Your task to perform on an android device: Open accessibility settings Image 0: 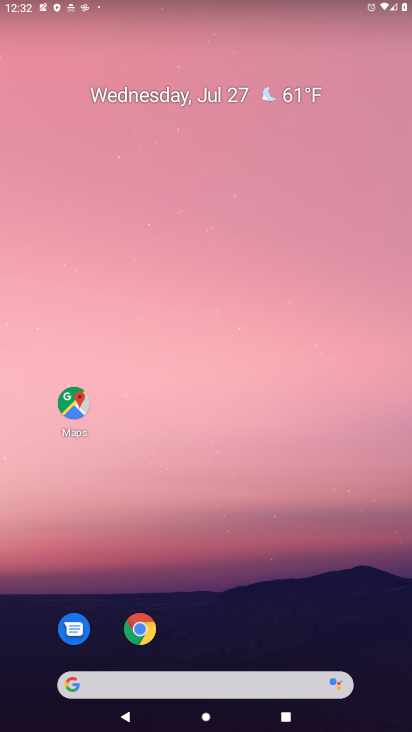
Step 0: drag from (254, 636) to (250, 200)
Your task to perform on an android device: Open accessibility settings Image 1: 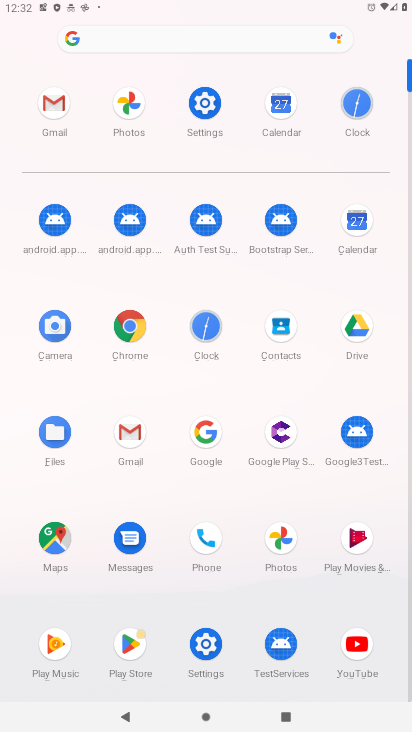
Step 1: click (198, 666)
Your task to perform on an android device: Open accessibility settings Image 2: 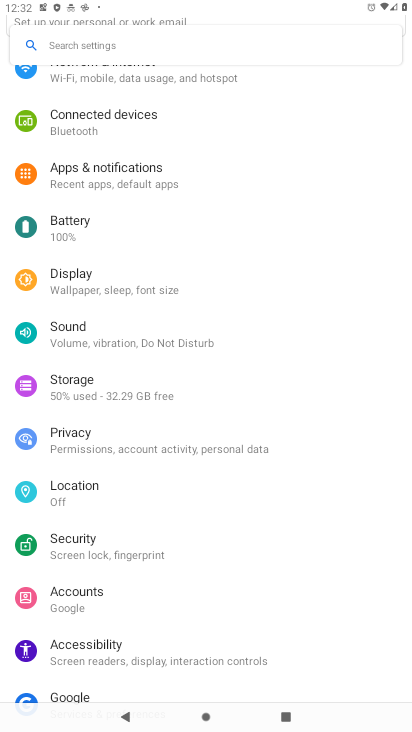
Step 2: click (150, 644)
Your task to perform on an android device: Open accessibility settings Image 3: 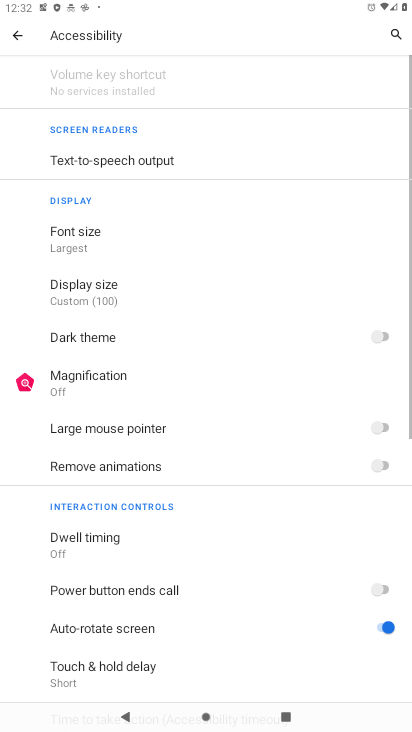
Step 3: task complete